Your task to perform on an android device: Play the last video I watched on Youtube Image 0: 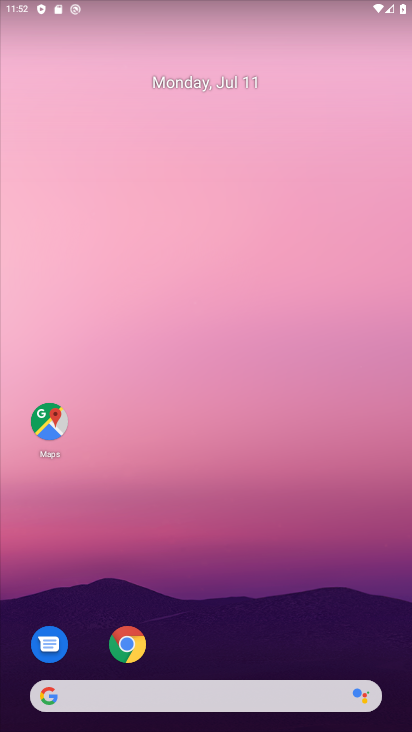
Step 0: drag from (14, 698) to (279, 8)
Your task to perform on an android device: Play the last video I watched on Youtube Image 1: 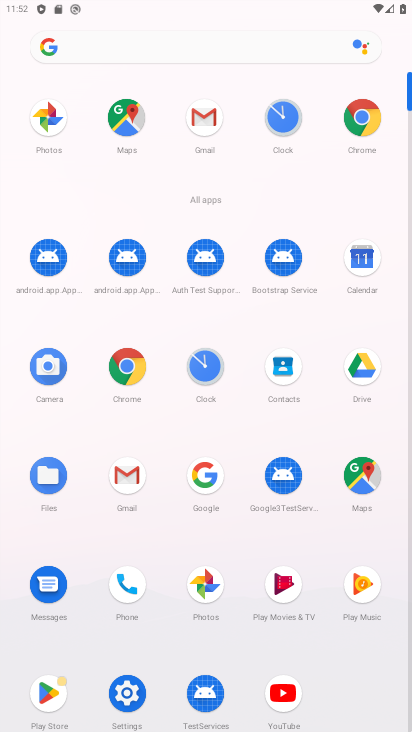
Step 1: click (278, 692)
Your task to perform on an android device: Play the last video I watched on Youtube Image 2: 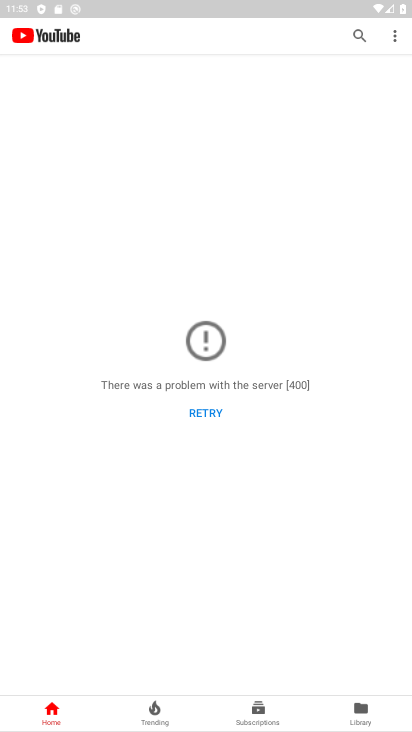
Step 2: click (396, 30)
Your task to perform on an android device: Play the last video I watched on Youtube Image 3: 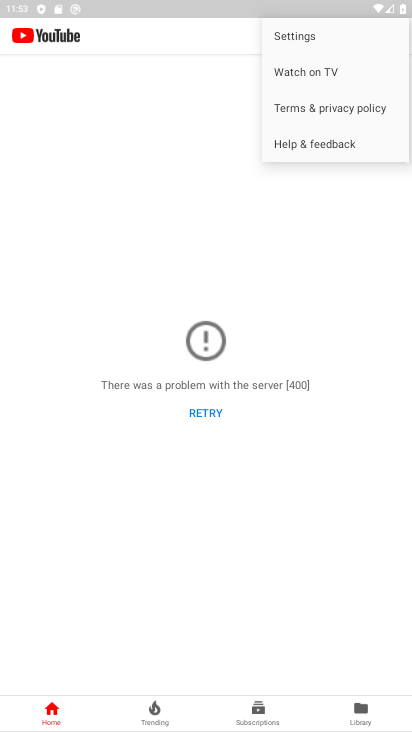
Step 3: click (361, 705)
Your task to perform on an android device: Play the last video I watched on Youtube Image 4: 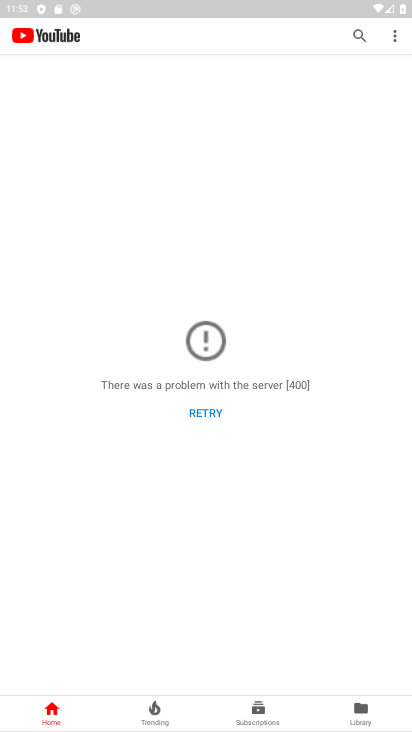
Step 4: click (357, 713)
Your task to perform on an android device: Play the last video I watched on Youtube Image 5: 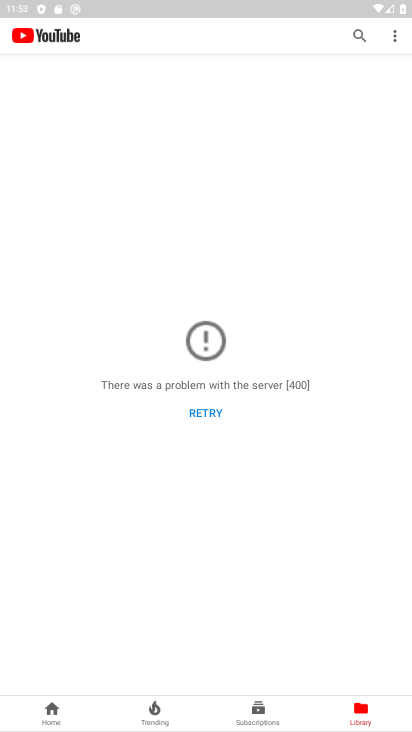
Step 5: click (359, 725)
Your task to perform on an android device: Play the last video I watched on Youtube Image 6: 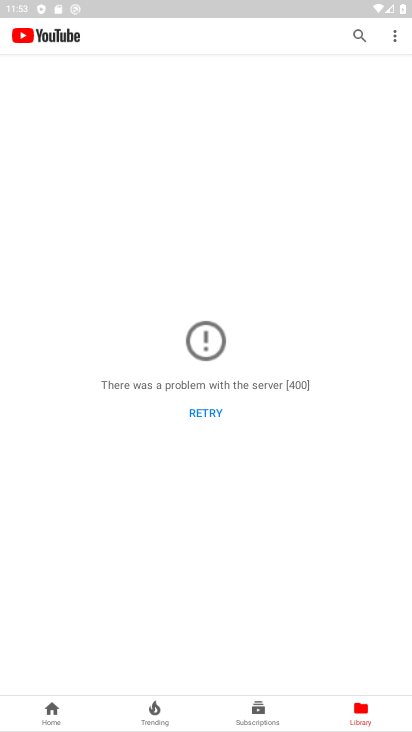
Step 6: click (391, 42)
Your task to perform on an android device: Play the last video I watched on Youtube Image 7: 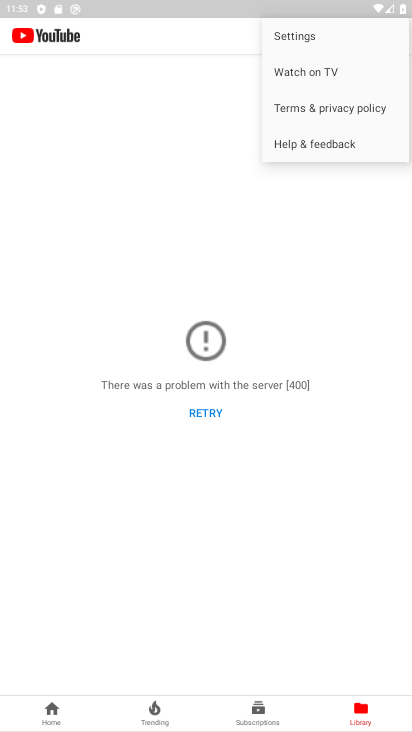
Step 7: click (304, 38)
Your task to perform on an android device: Play the last video I watched on Youtube Image 8: 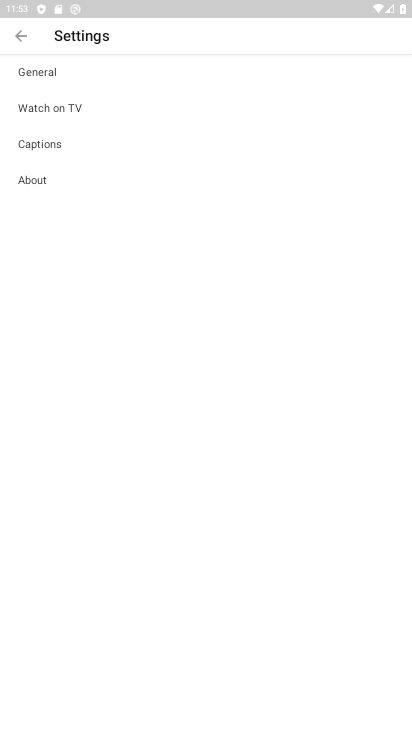
Step 8: click (17, 27)
Your task to perform on an android device: Play the last video I watched on Youtube Image 9: 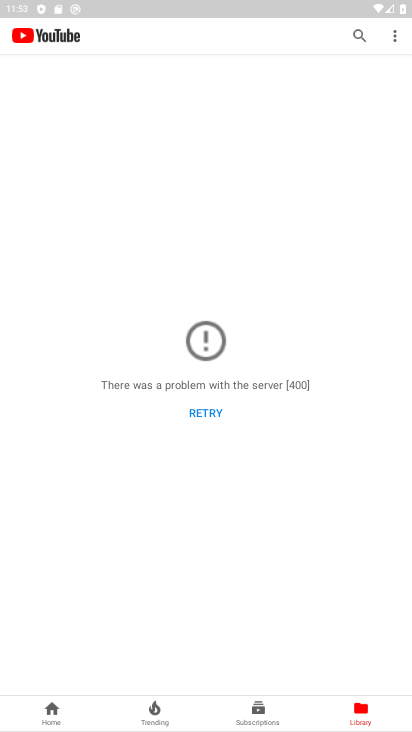
Step 9: task complete